Your task to perform on an android device: turn on location history Image 0: 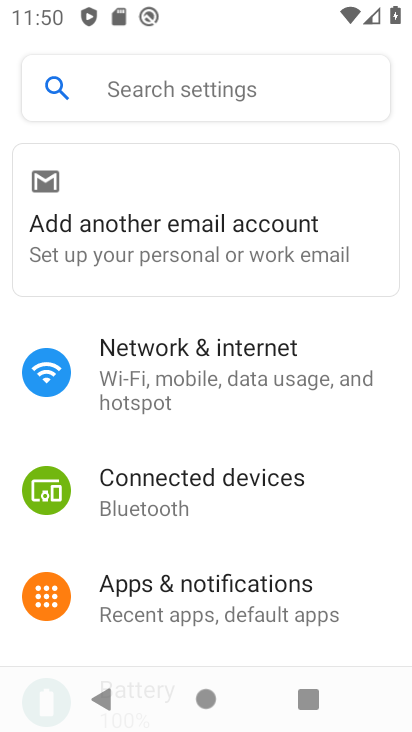
Step 0: drag from (302, 521) to (284, 283)
Your task to perform on an android device: turn on location history Image 1: 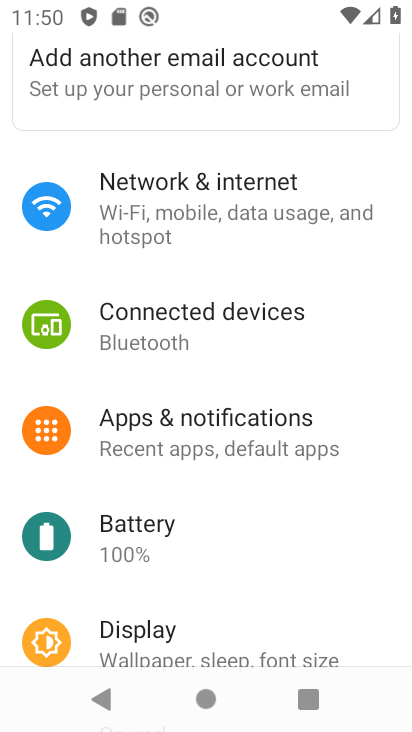
Step 1: drag from (232, 510) to (281, 6)
Your task to perform on an android device: turn on location history Image 2: 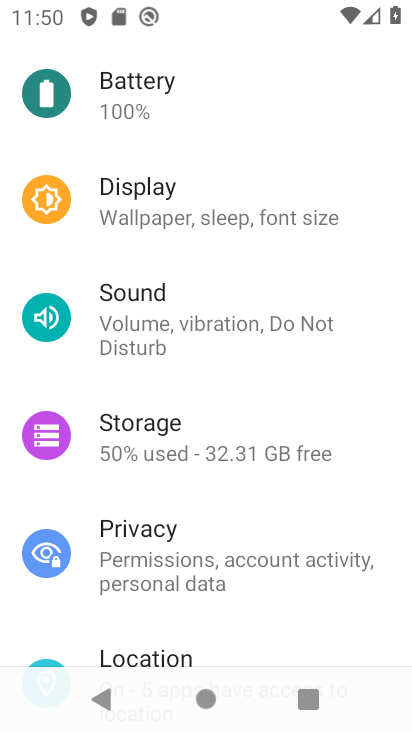
Step 2: drag from (251, 562) to (360, 131)
Your task to perform on an android device: turn on location history Image 3: 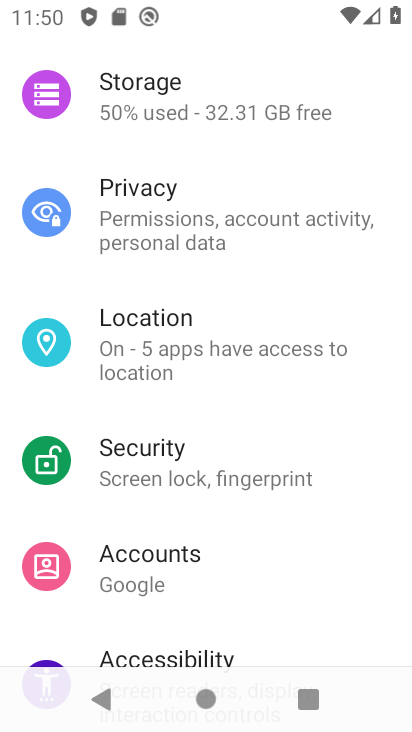
Step 3: click (261, 373)
Your task to perform on an android device: turn on location history Image 4: 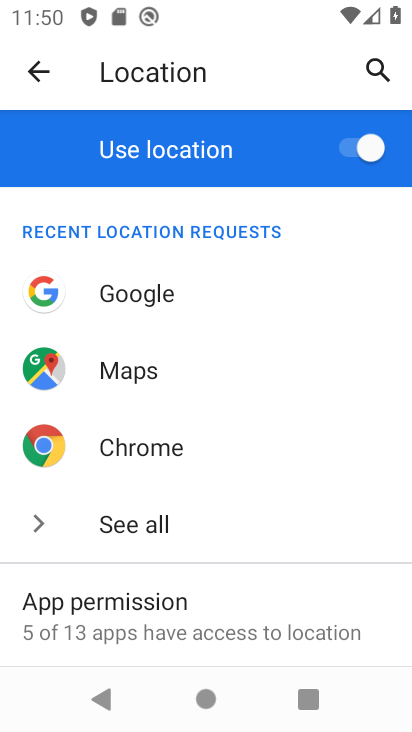
Step 4: drag from (250, 547) to (77, 78)
Your task to perform on an android device: turn on location history Image 5: 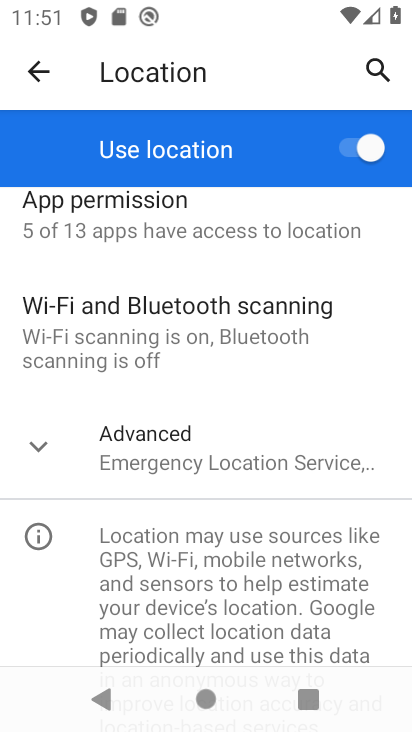
Step 5: click (59, 449)
Your task to perform on an android device: turn on location history Image 6: 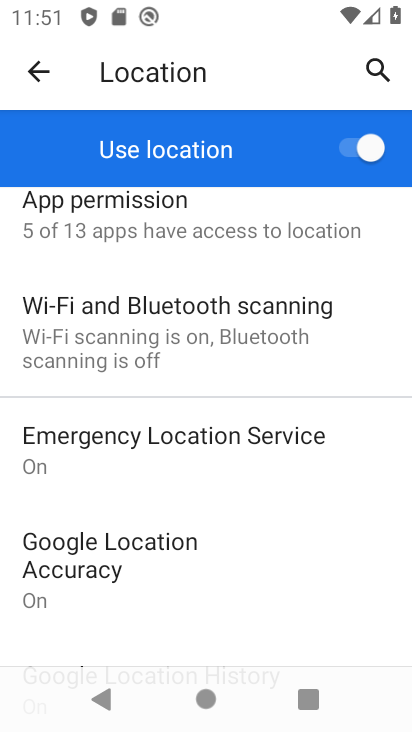
Step 6: drag from (135, 389) to (184, 173)
Your task to perform on an android device: turn on location history Image 7: 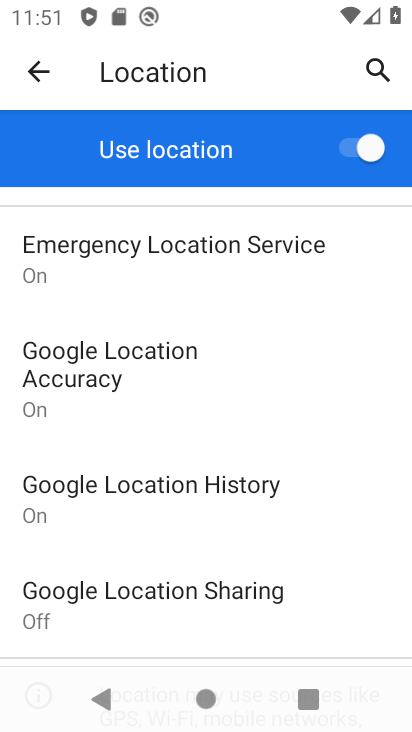
Step 7: click (175, 495)
Your task to perform on an android device: turn on location history Image 8: 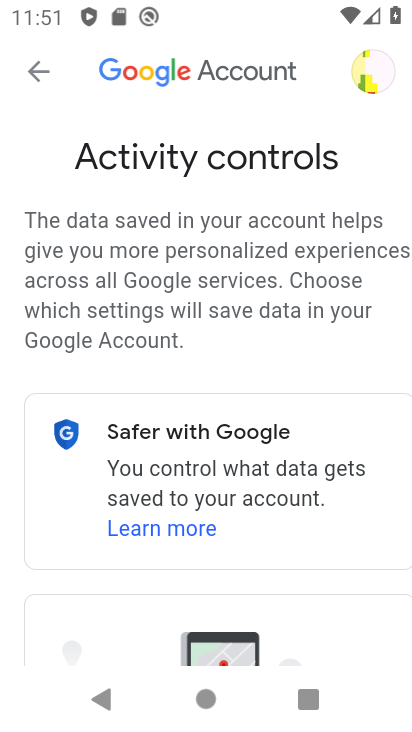
Step 8: task complete